Your task to perform on an android device: open chrome privacy settings Image 0: 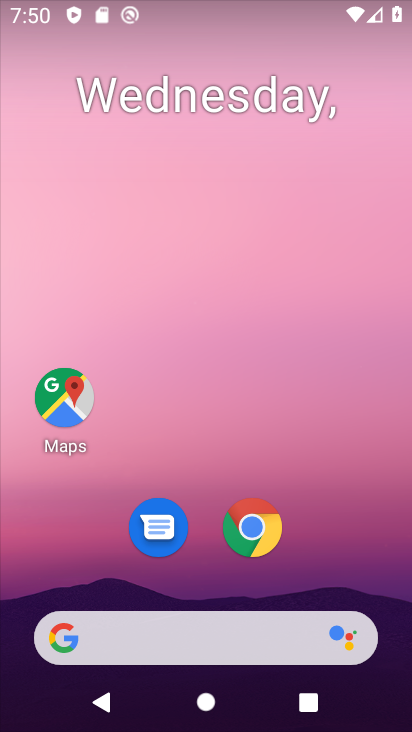
Step 0: click (260, 528)
Your task to perform on an android device: open chrome privacy settings Image 1: 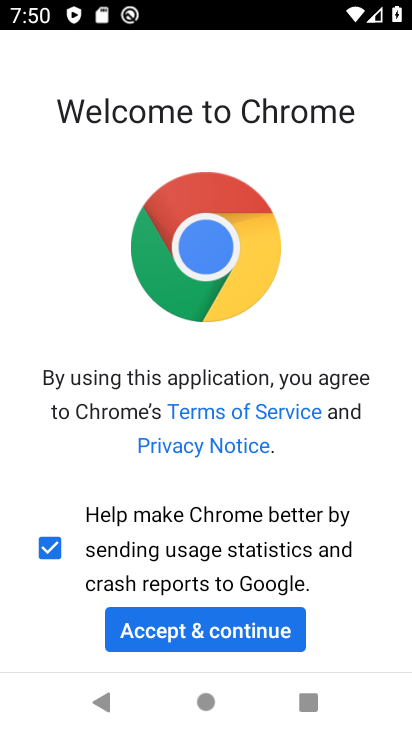
Step 1: click (219, 624)
Your task to perform on an android device: open chrome privacy settings Image 2: 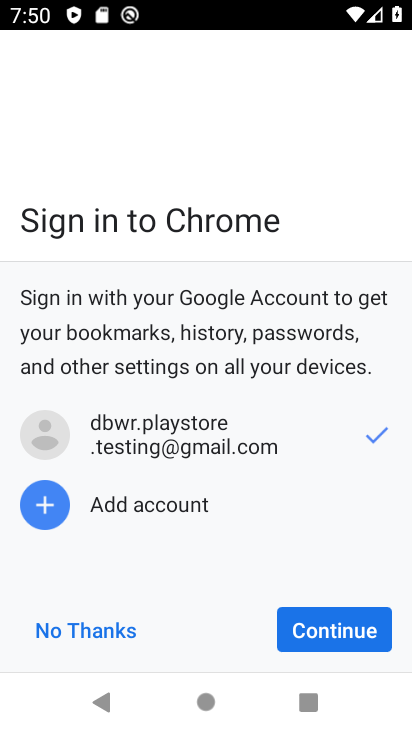
Step 2: click (360, 629)
Your task to perform on an android device: open chrome privacy settings Image 3: 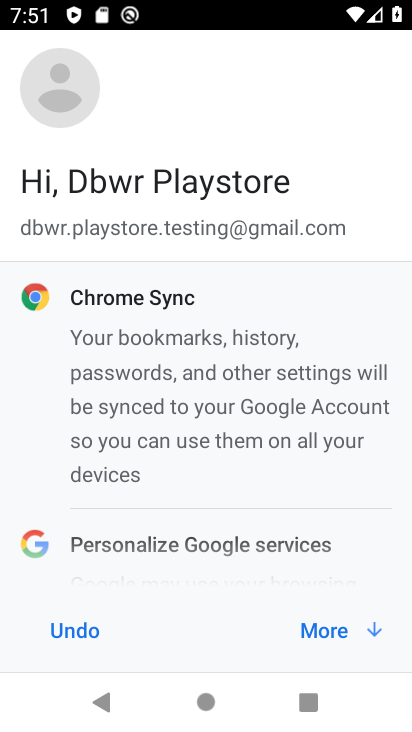
Step 3: click (328, 619)
Your task to perform on an android device: open chrome privacy settings Image 4: 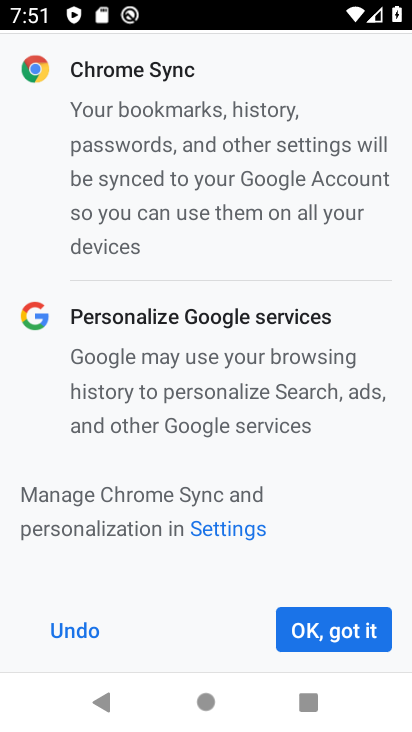
Step 4: click (328, 622)
Your task to perform on an android device: open chrome privacy settings Image 5: 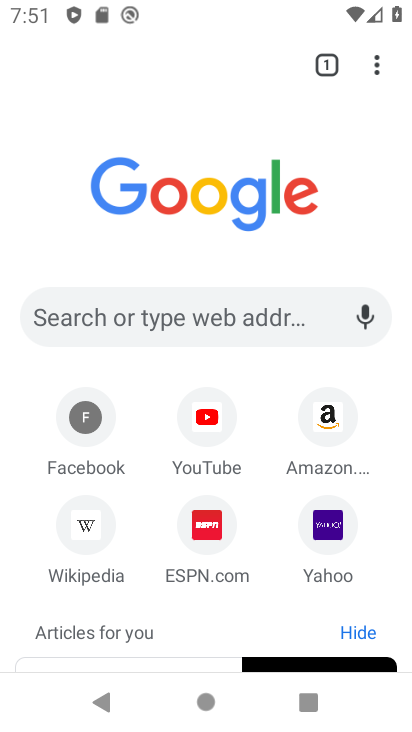
Step 5: click (376, 63)
Your task to perform on an android device: open chrome privacy settings Image 6: 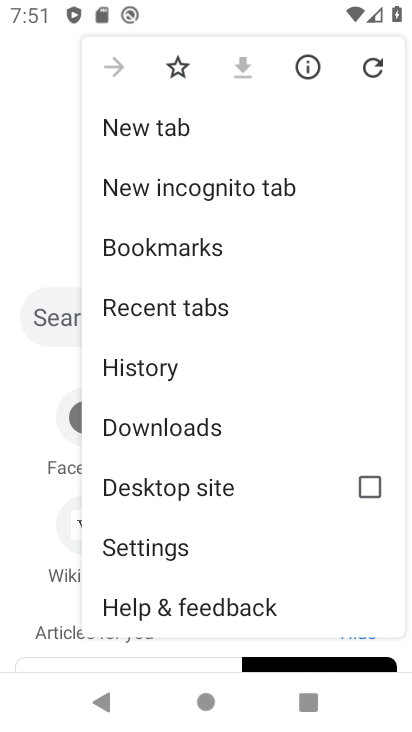
Step 6: click (146, 551)
Your task to perform on an android device: open chrome privacy settings Image 7: 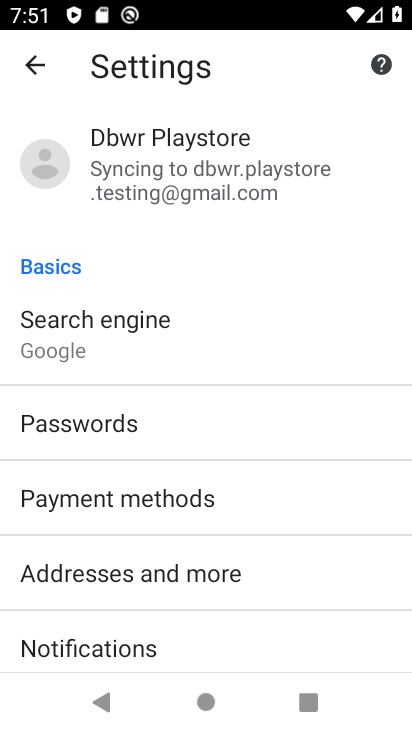
Step 7: drag from (291, 595) to (277, 331)
Your task to perform on an android device: open chrome privacy settings Image 8: 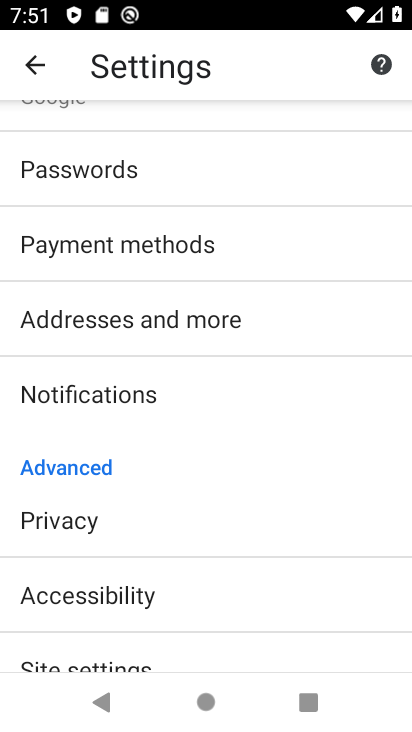
Step 8: click (51, 515)
Your task to perform on an android device: open chrome privacy settings Image 9: 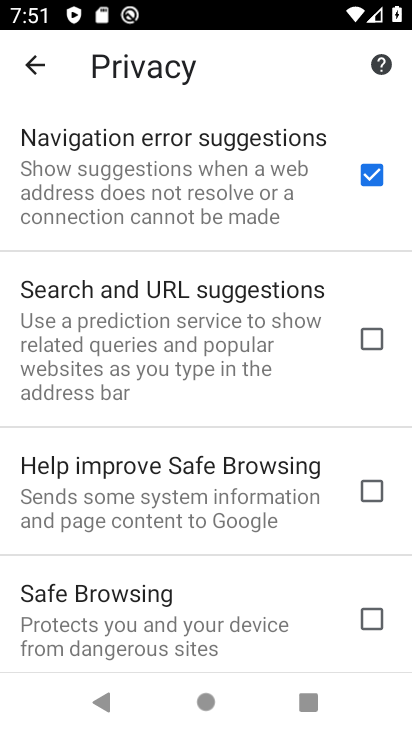
Step 9: task complete